Your task to perform on an android device: Go to Google maps Image 0: 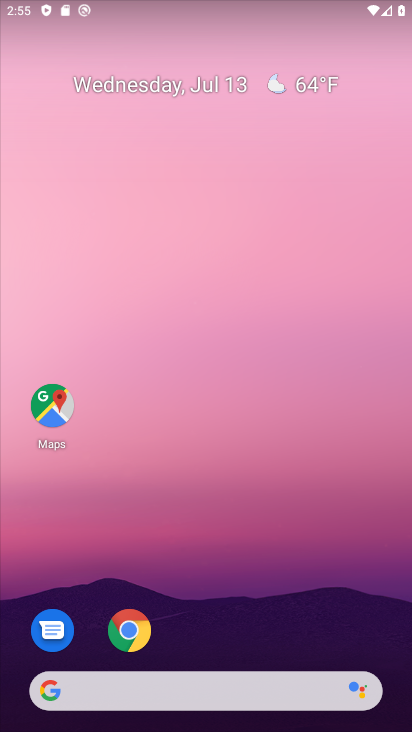
Step 0: click (50, 408)
Your task to perform on an android device: Go to Google maps Image 1: 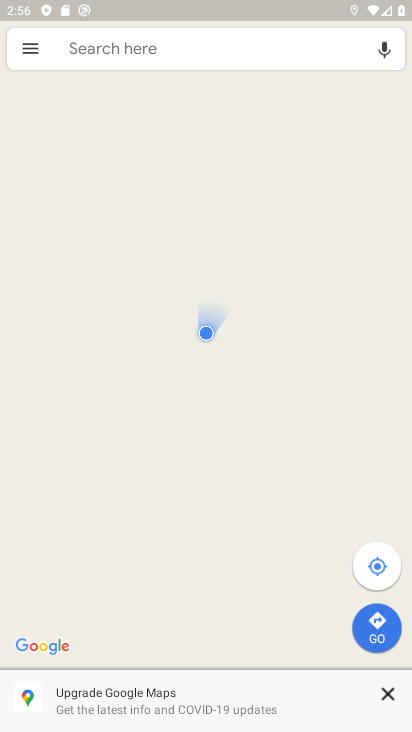
Step 1: task complete